Your task to perform on an android device: Go to ESPN.com Image 0: 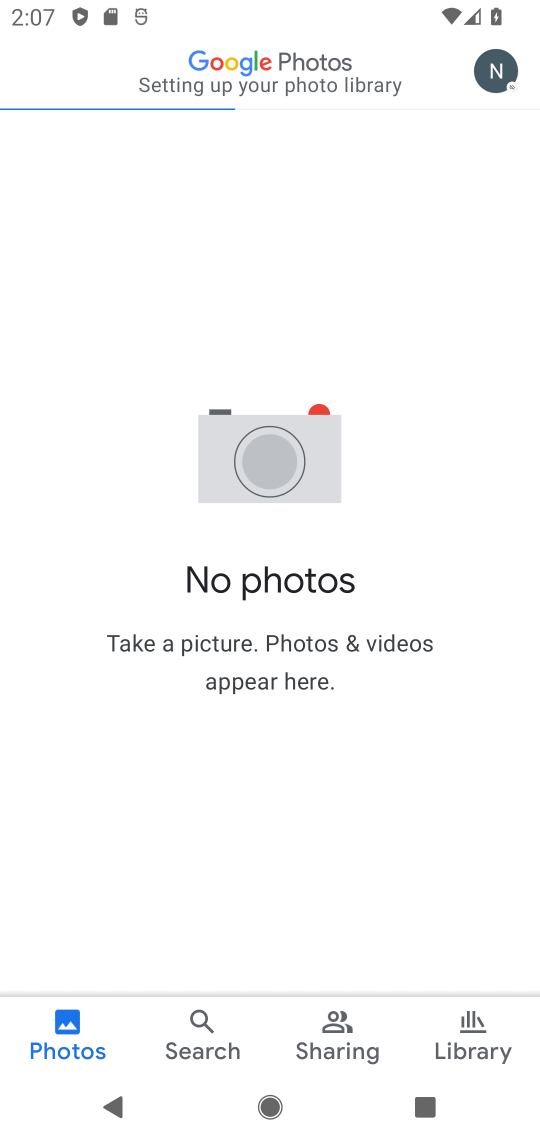
Step 0: press home button
Your task to perform on an android device: Go to ESPN.com Image 1: 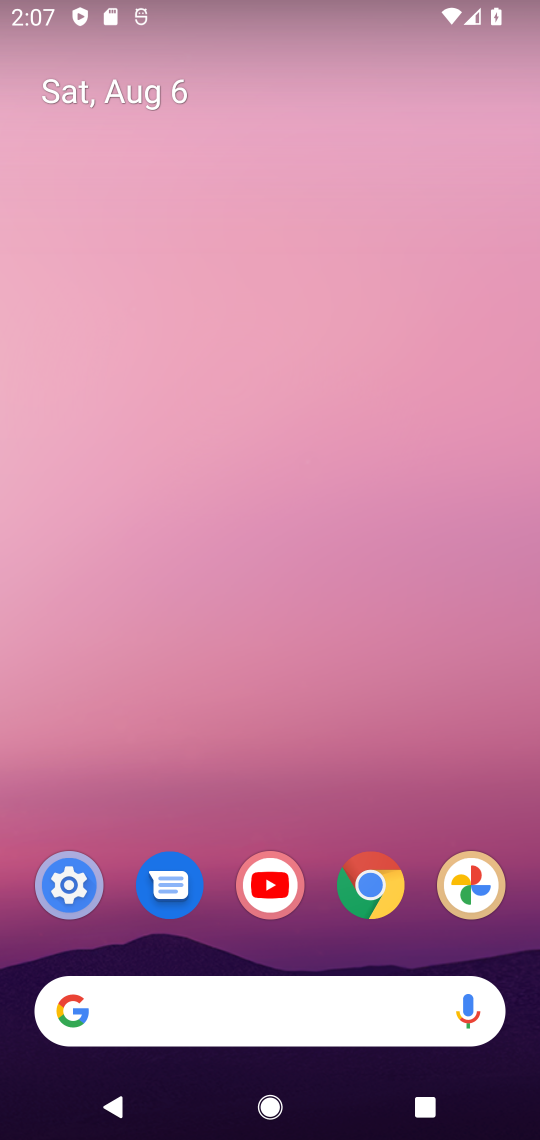
Step 1: drag from (428, 904) to (261, 65)
Your task to perform on an android device: Go to ESPN.com Image 2: 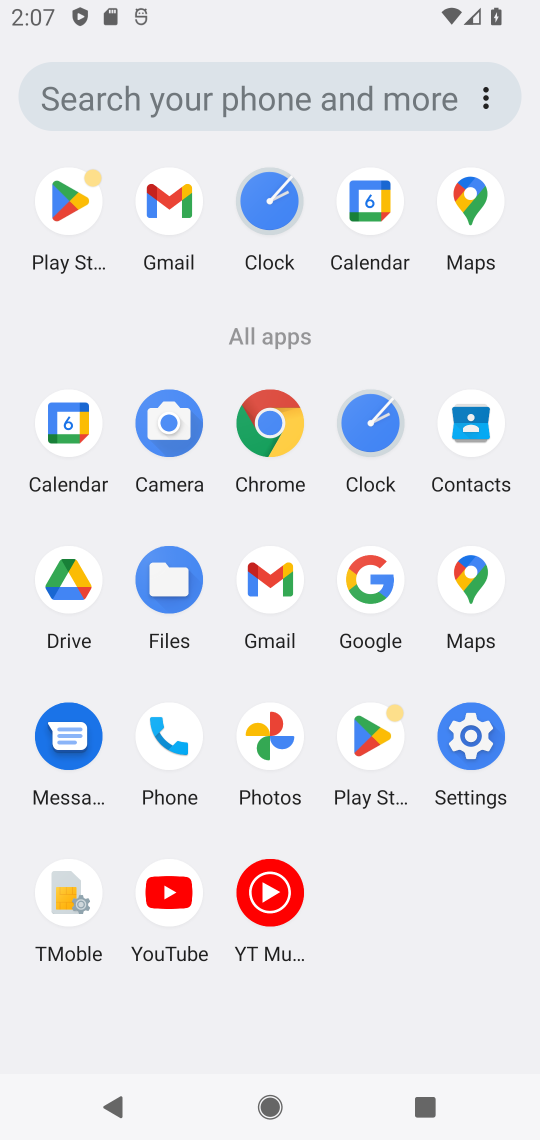
Step 2: click (373, 584)
Your task to perform on an android device: Go to ESPN.com Image 3: 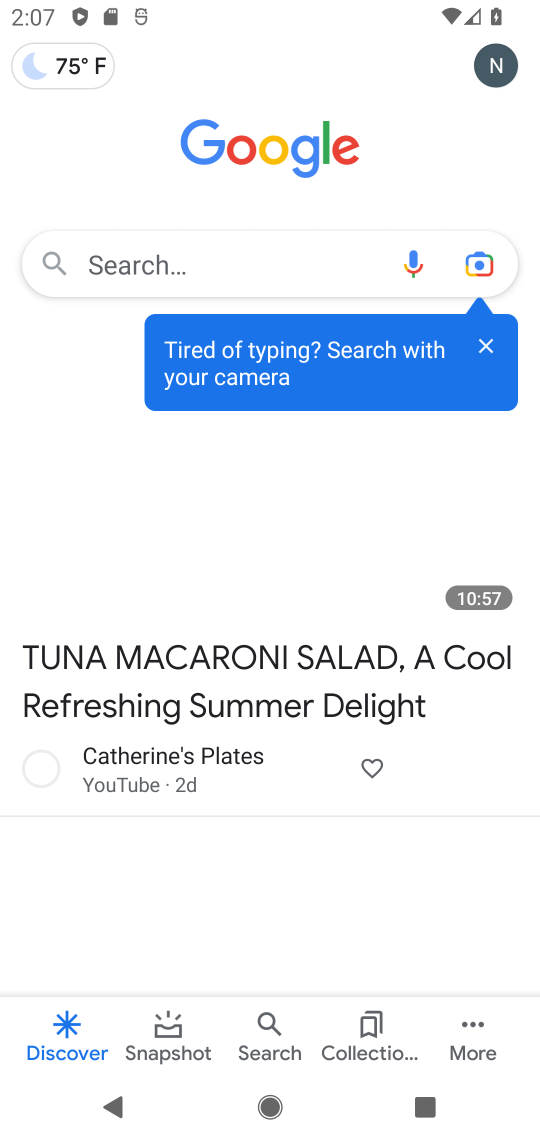
Step 3: click (173, 265)
Your task to perform on an android device: Go to ESPN.com Image 4: 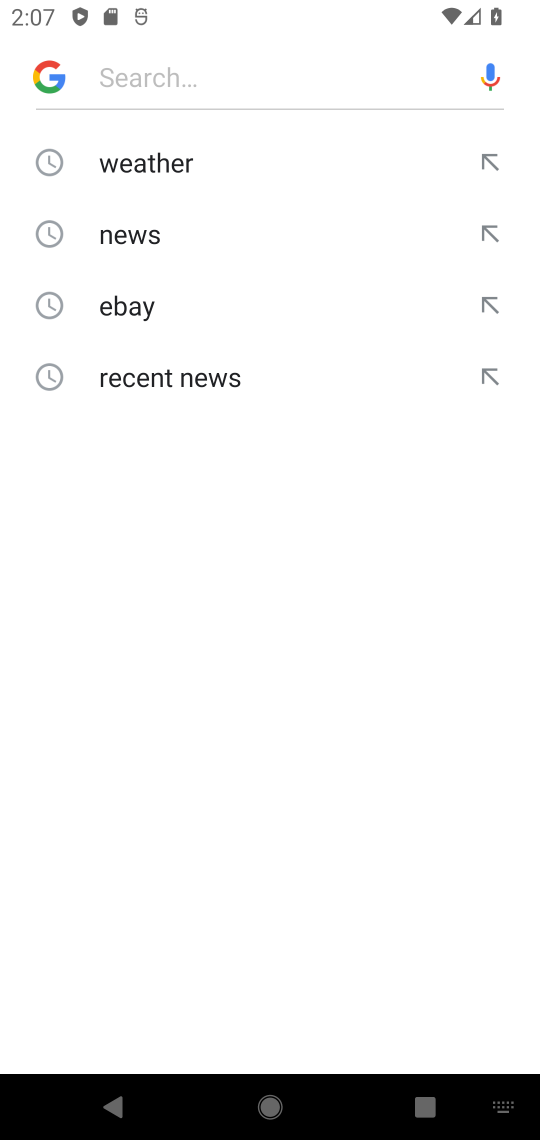
Step 4: type "ESPN.com"
Your task to perform on an android device: Go to ESPN.com Image 5: 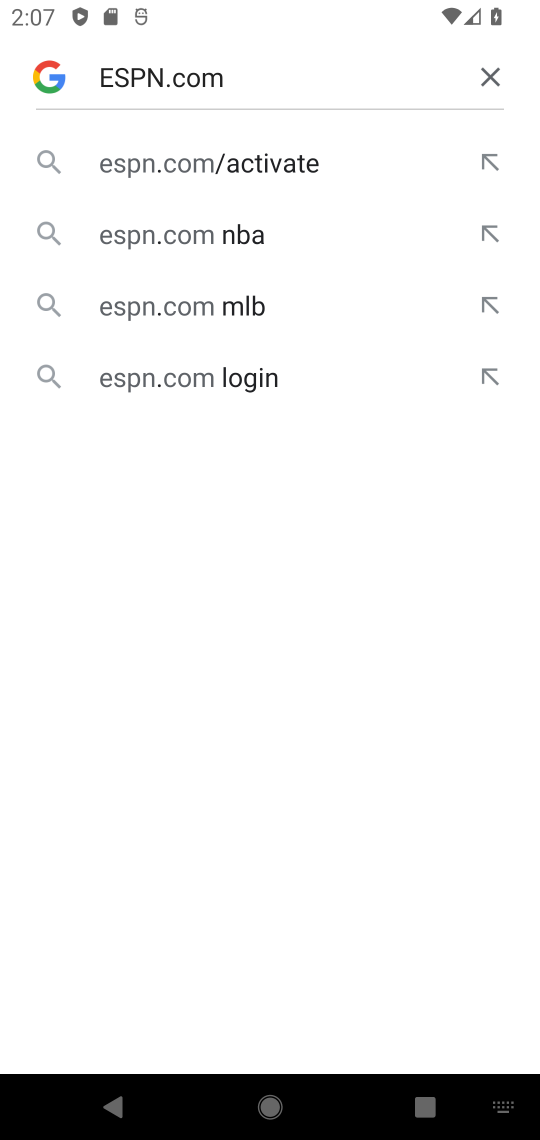
Step 5: click (247, 171)
Your task to perform on an android device: Go to ESPN.com Image 6: 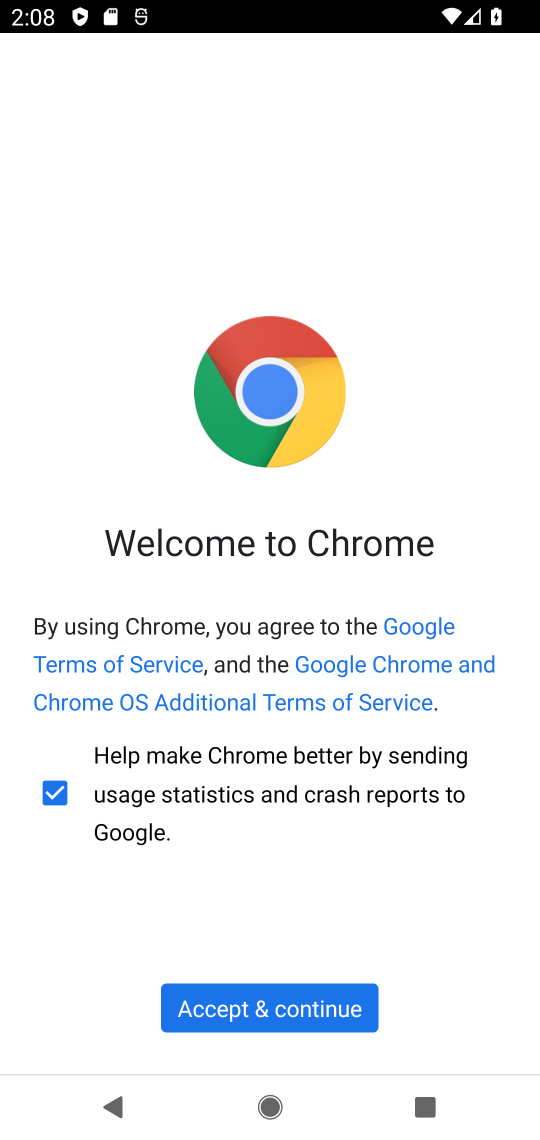
Step 6: click (273, 1010)
Your task to perform on an android device: Go to ESPN.com Image 7: 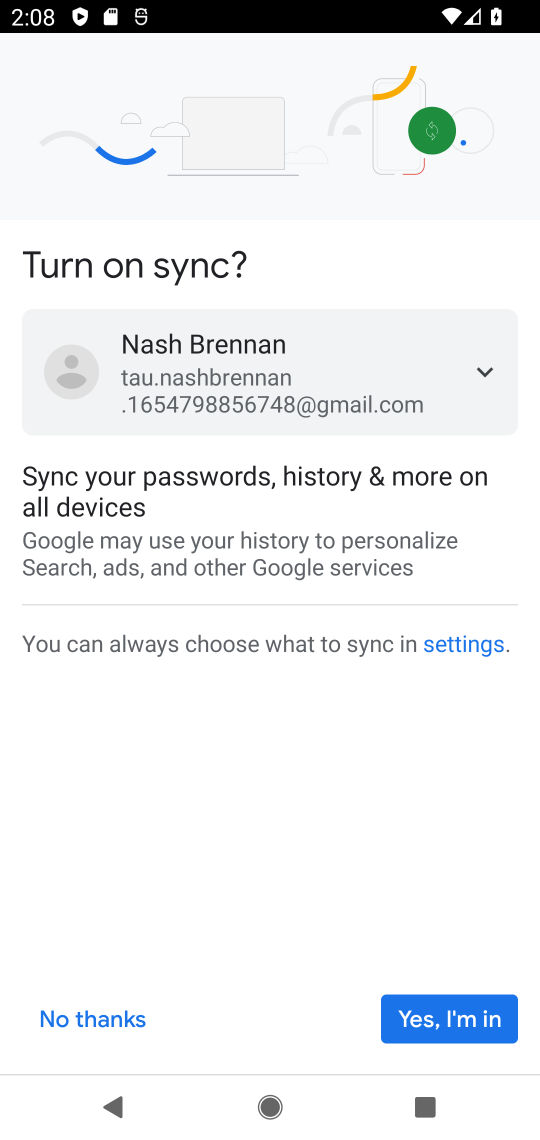
Step 7: click (457, 1016)
Your task to perform on an android device: Go to ESPN.com Image 8: 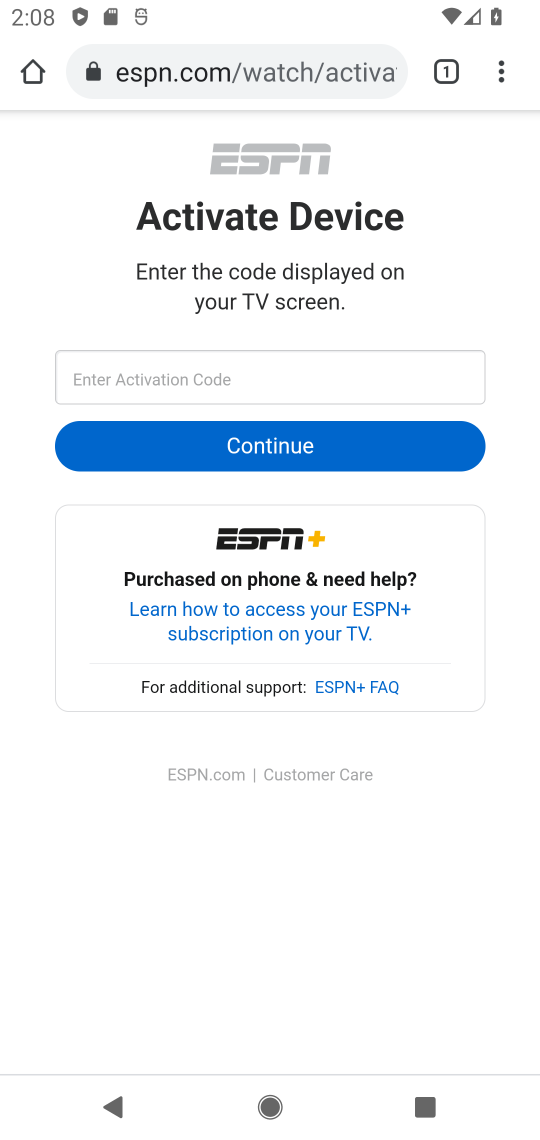
Step 8: task complete